Your task to perform on an android device: turn off priority inbox in the gmail app Image 0: 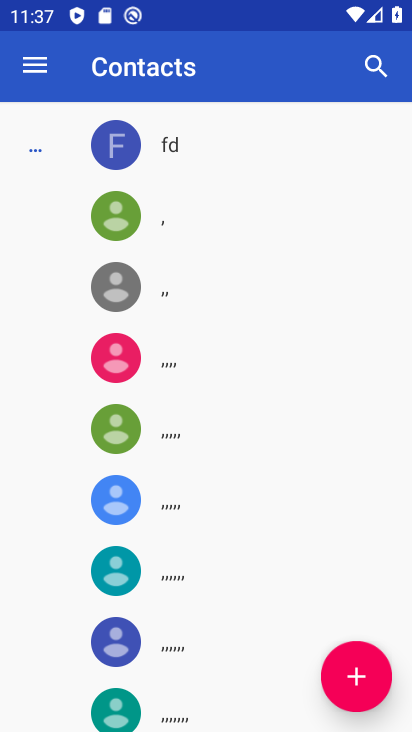
Step 0: press home button
Your task to perform on an android device: turn off priority inbox in the gmail app Image 1: 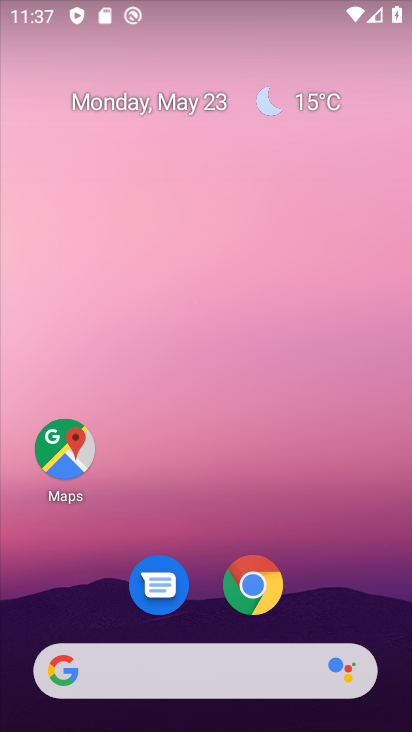
Step 1: drag from (219, 500) to (242, 0)
Your task to perform on an android device: turn off priority inbox in the gmail app Image 2: 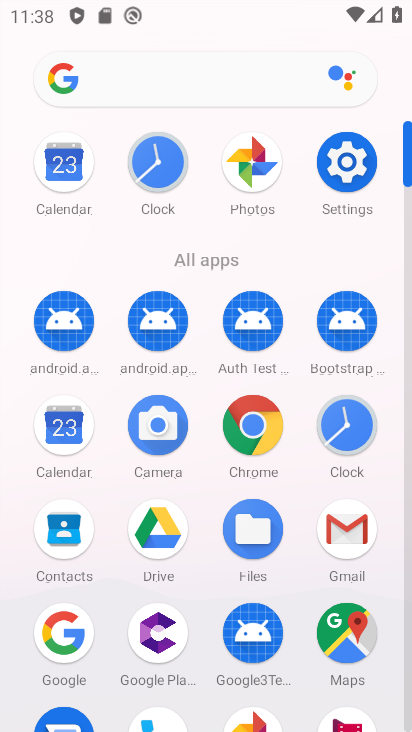
Step 2: drag from (204, 608) to (175, 313)
Your task to perform on an android device: turn off priority inbox in the gmail app Image 3: 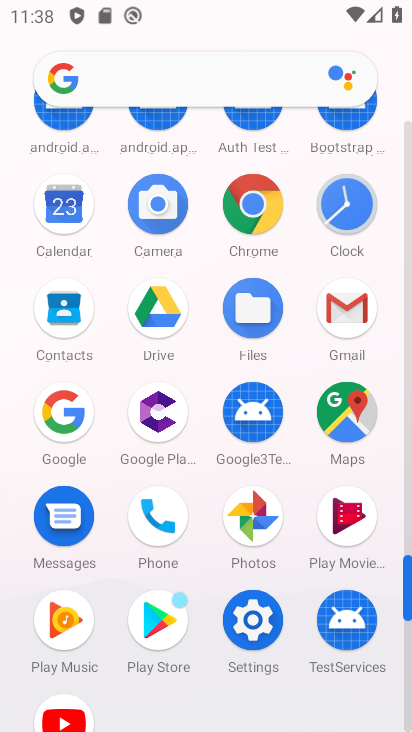
Step 3: click (340, 304)
Your task to perform on an android device: turn off priority inbox in the gmail app Image 4: 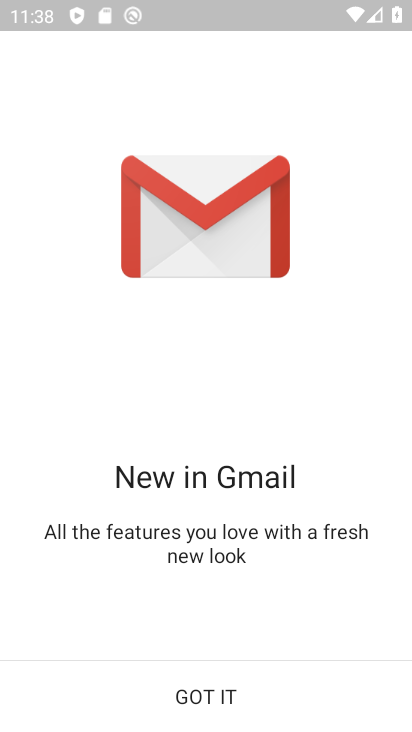
Step 4: click (264, 685)
Your task to perform on an android device: turn off priority inbox in the gmail app Image 5: 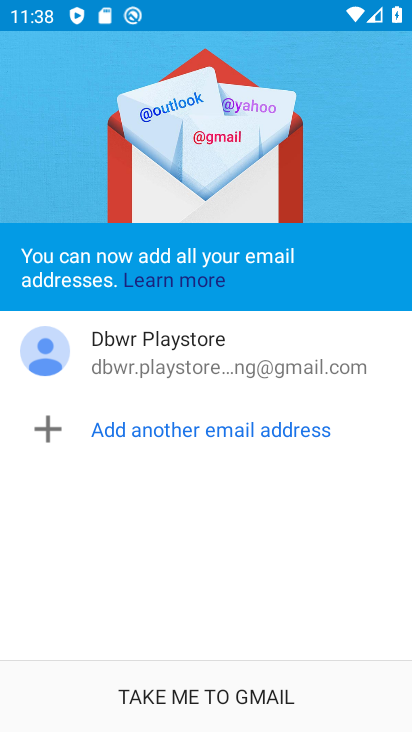
Step 5: click (264, 683)
Your task to perform on an android device: turn off priority inbox in the gmail app Image 6: 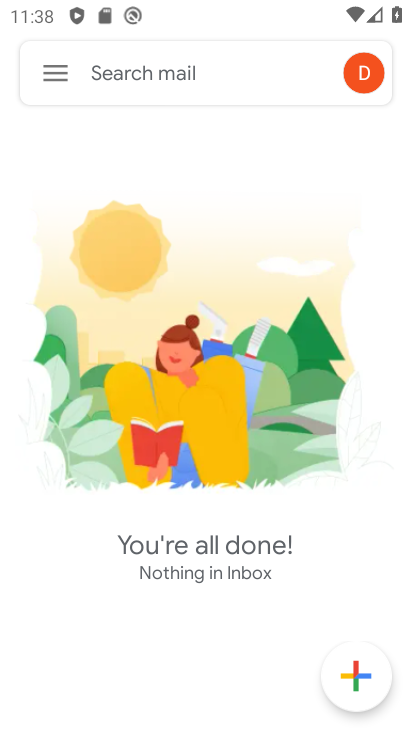
Step 6: click (59, 70)
Your task to perform on an android device: turn off priority inbox in the gmail app Image 7: 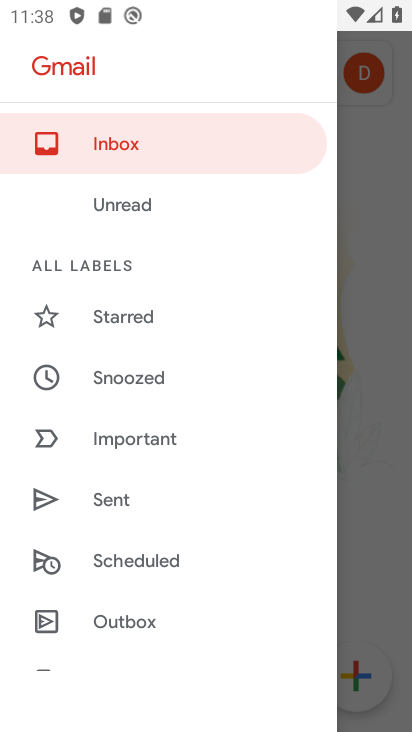
Step 7: drag from (146, 599) to (179, 113)
Your task to perform on an android device: turn off priority inbox in the gmail app Image 8: 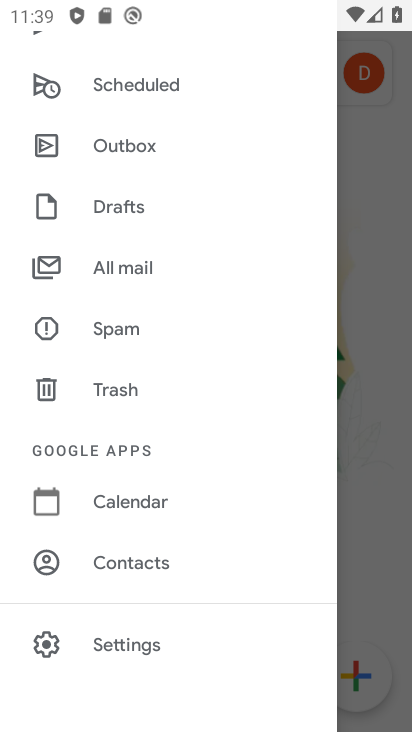
Step 8: click (153, 637)
Your task to perform on an android device: turn off priority inbox in the gmail app Image 9: 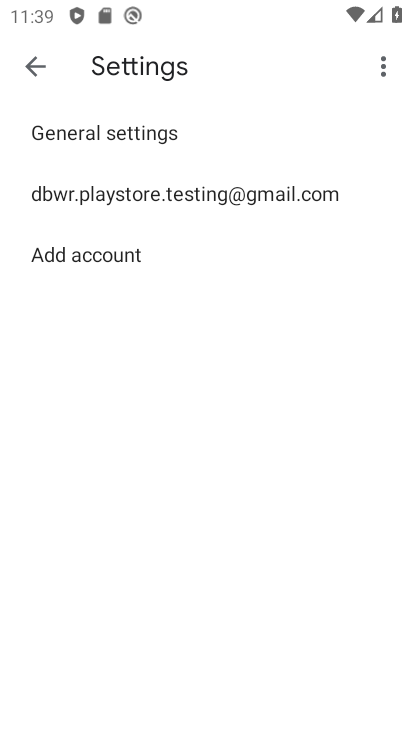
Step 9: click (251, 191)
Your task to perform on an android device: turn off priority inbox in the gmail app Image 10: 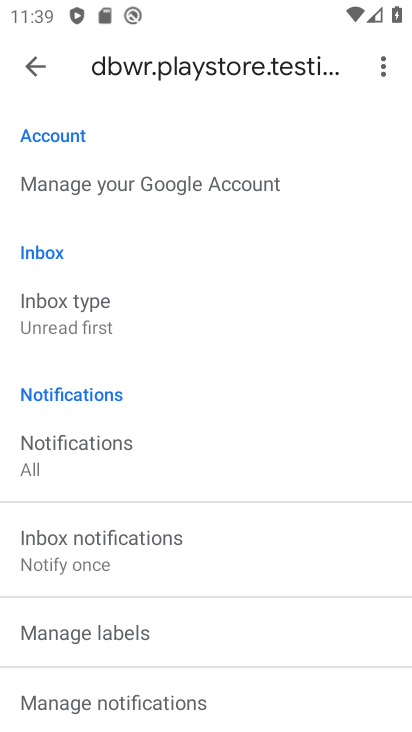
Step 10: click (96, 320)
Your task to perform on an android device: turn off priority inbox in the gmail app Image 11: 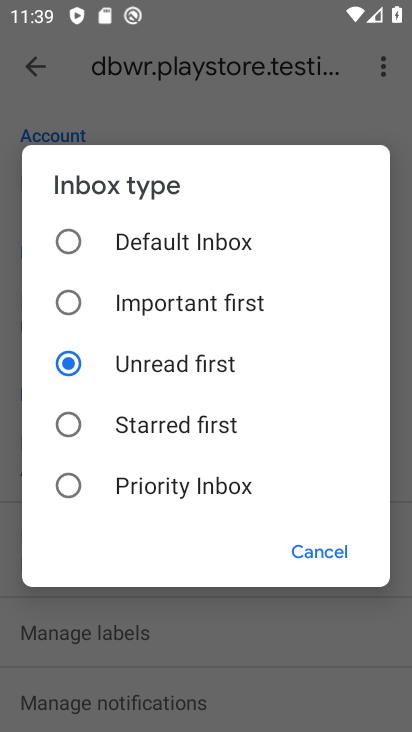
Step 11: click (62, 230)
Your task to perform on an android device: turn off priority inbox in the gmail app Image 12: 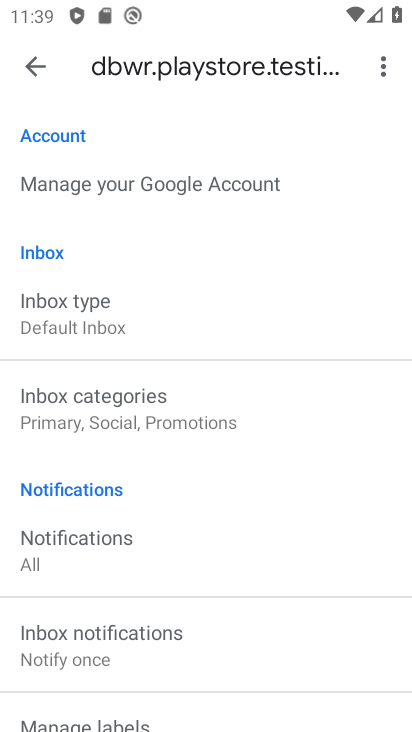
Step 12: task complete